Your task to perform on an android device: set the timer Image 0: 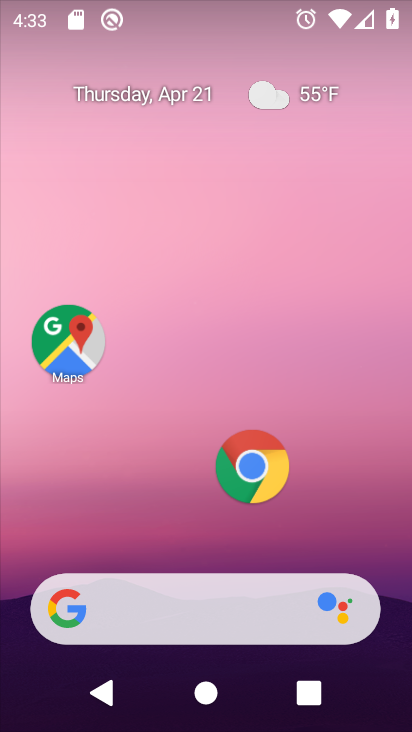
Step 0: drag from (183, 561) to (260, 107)
Your task to perform on an android device: set the timer Image 1: 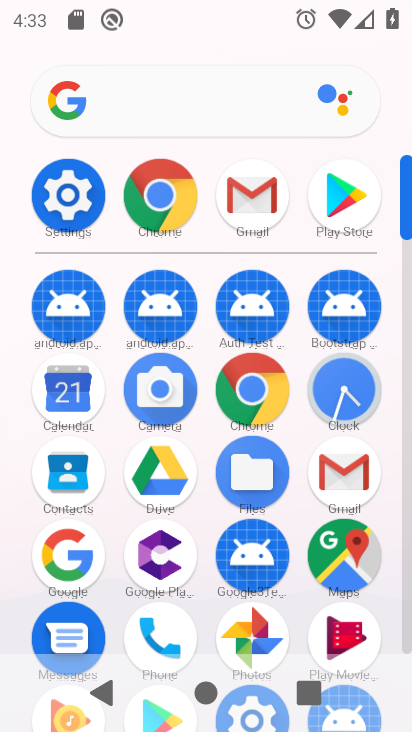
Step 1: click (338, 394)
Your task to perform on an android device: set the timer Image 2: 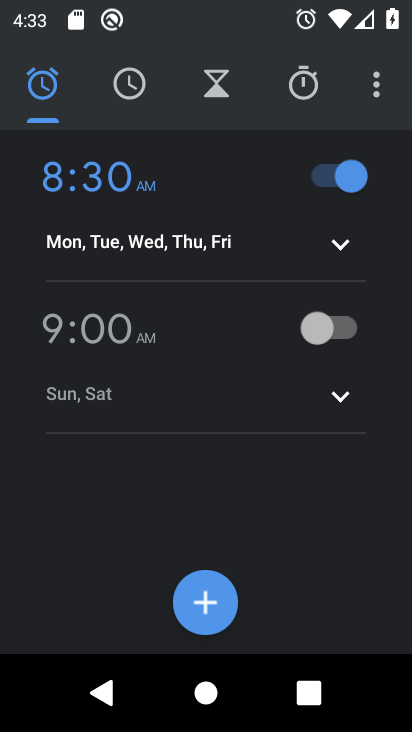
Step 2: click (302, 88)
Your task to perform on an android device: set the timer Image 3: 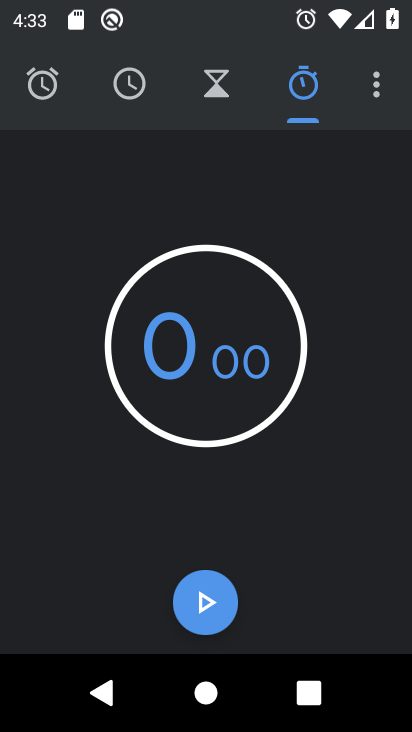
Step 3: click (233, 77)
Your task to perform on an android device: set the timer Image 4: 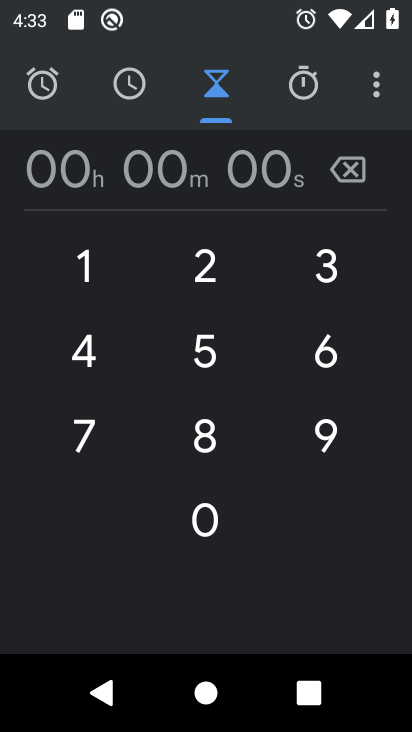
Step 4: click (209, 278)
Your task to perform on an android device: set the timer Image 5: 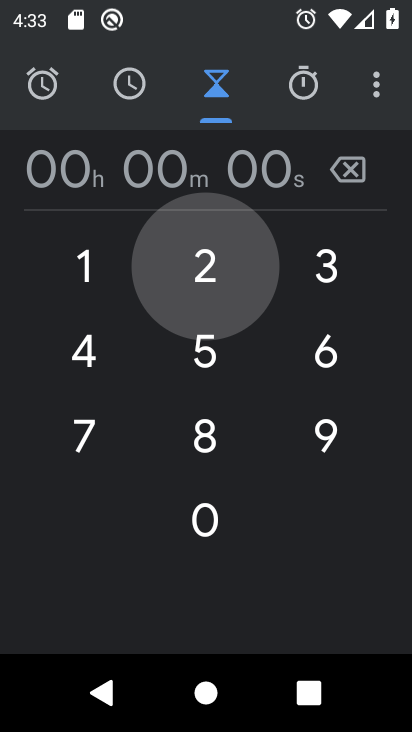
Step 5: click (208, 275)
Your task to perform on an android device: set the timer Image 6: 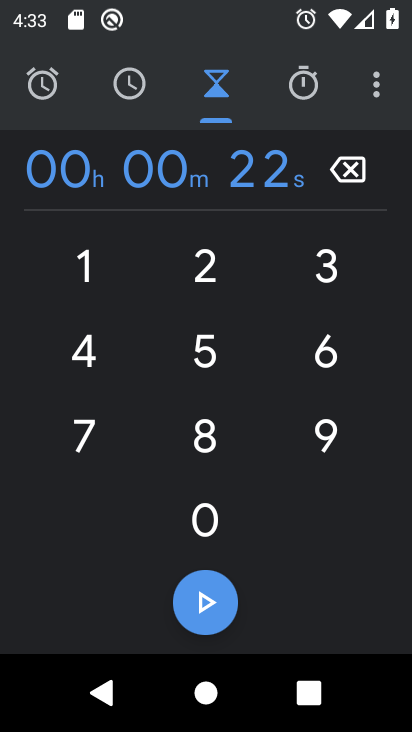
Step 6: click (219, 593)
Your task to perform on an android device: set the timer Image 7: 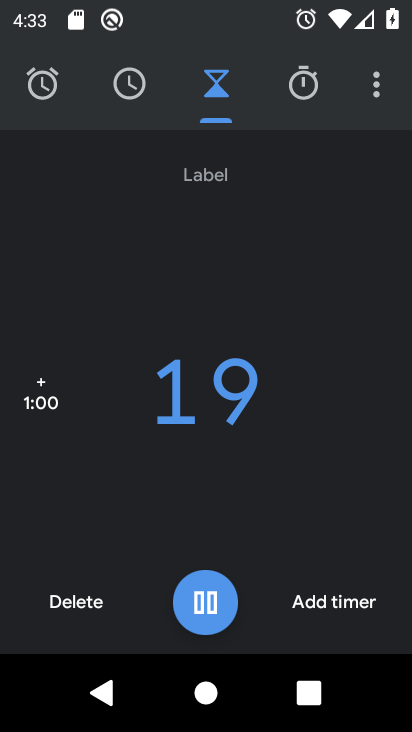
Step 7: task complete